Your task to perform on an android device: manage bookmarks in the chrome app Image 0: 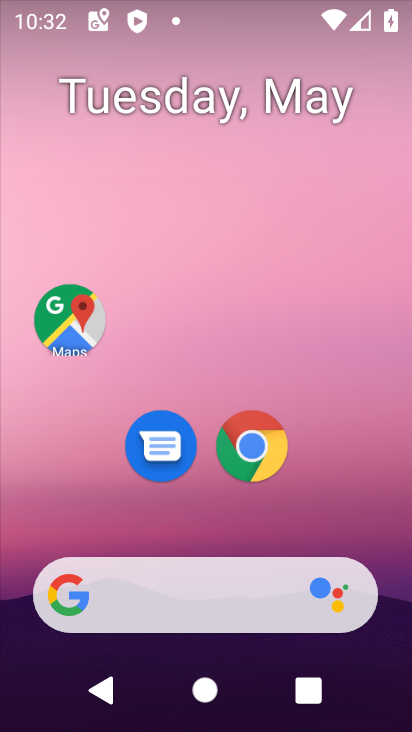
Step 0: click (258, 431)
Your task to perform on an android device: manage bookmarks in the chrome app Image 1: 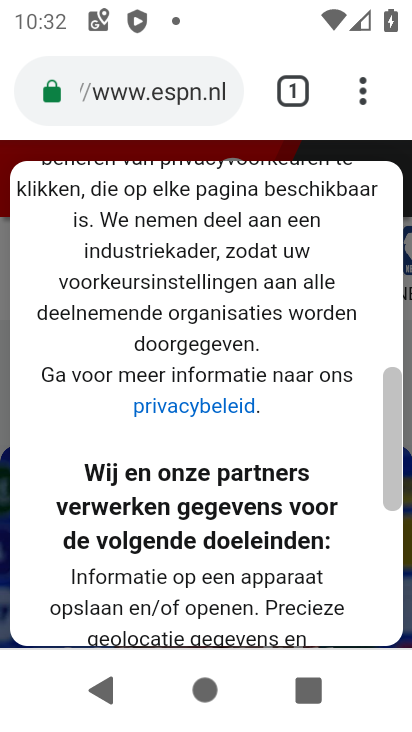
Step 1: click (362, 94)
Your task to perform on an android device: manage bookmarks in the chrome app Image 2: 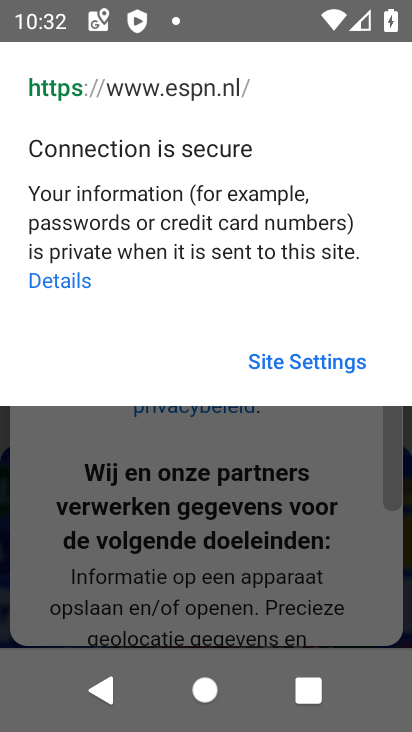
Step 2: click (302, 420)
Your task to perform on an android device: manage bookmarks in the chrome app Image 3: 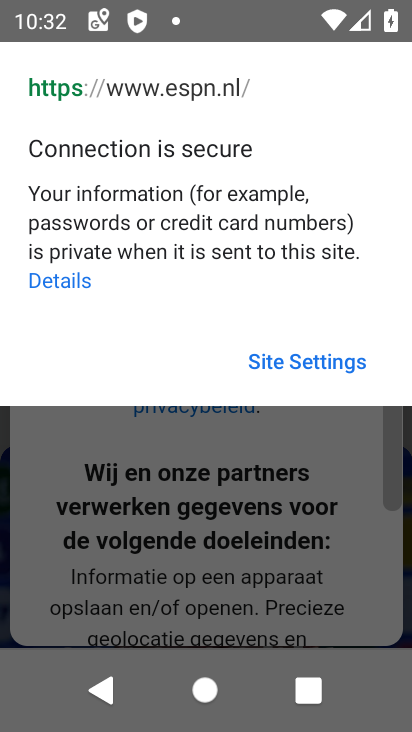
Step 3: click (282, 428)
Your task to perform on an android device: manage bookmarks in the chrome app Image 4: 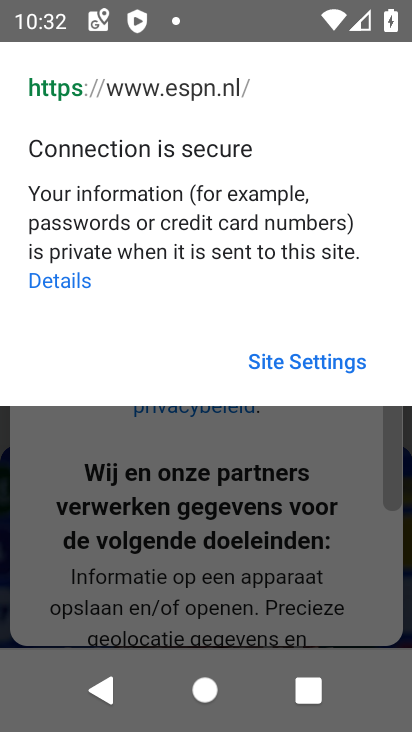
Step 4: click (281, 424)
Your task to perform on an android device: manage bookmarks in the chrome app Image 5: 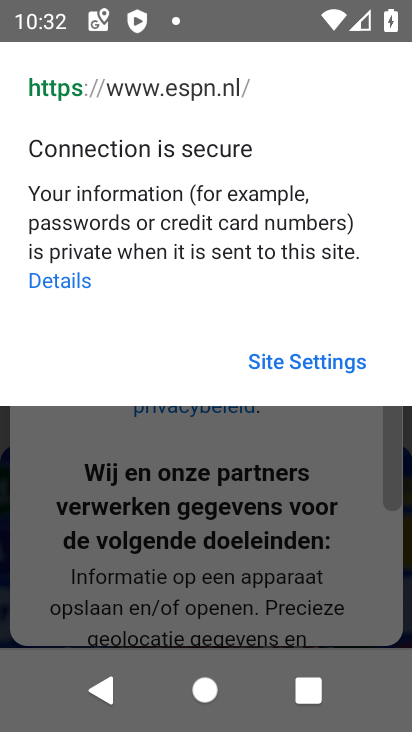
Step 5: press back button
Your task to perform on an android device: manage bookmarks in the chrome app Image 6: 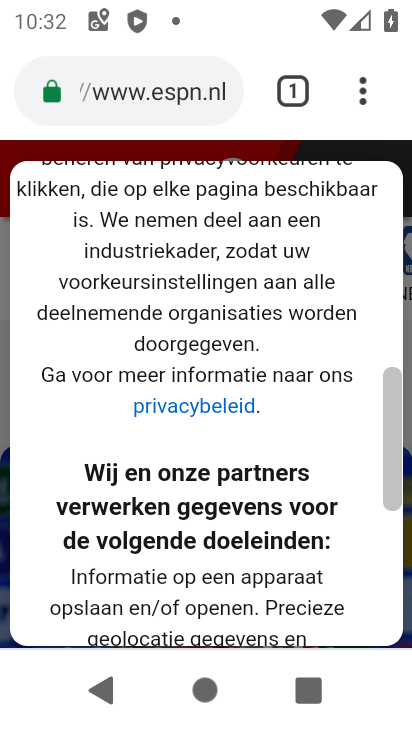
Step 6: click (366, 91)
Your task to perform on an android device: manage bookmarks in the chrome app Image 7: 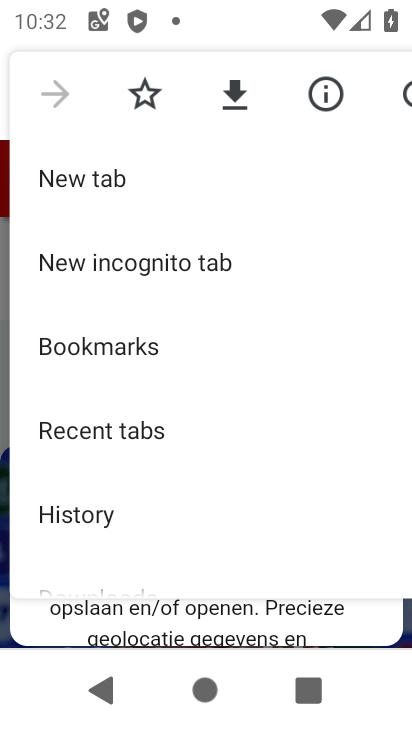
Step 7: drag from (165, 453) to (210, 250)
Your task to perform on an android device: manage bookmarks in the chrome app Image 8: 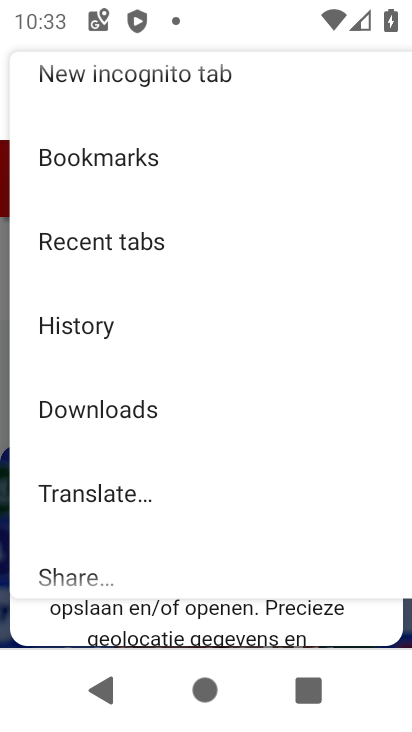
Step 8: click (107, 160)
Your task to perform on an android device: manage bookmarks in the chrome app Image 9: 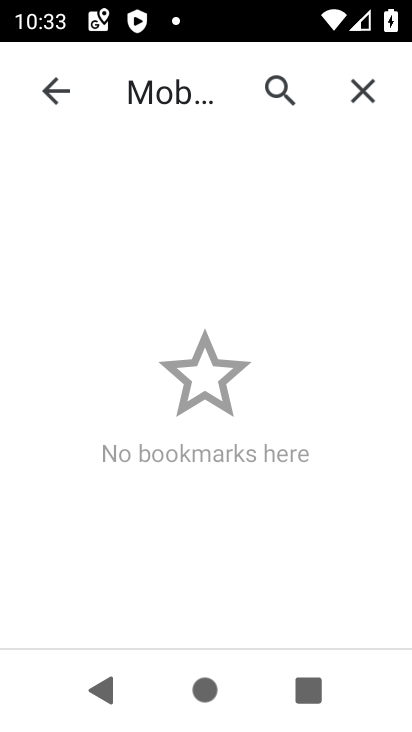
Step 9: task complete